Your task to perform on an android device: manage bookmarks in the chrome app Image 0: 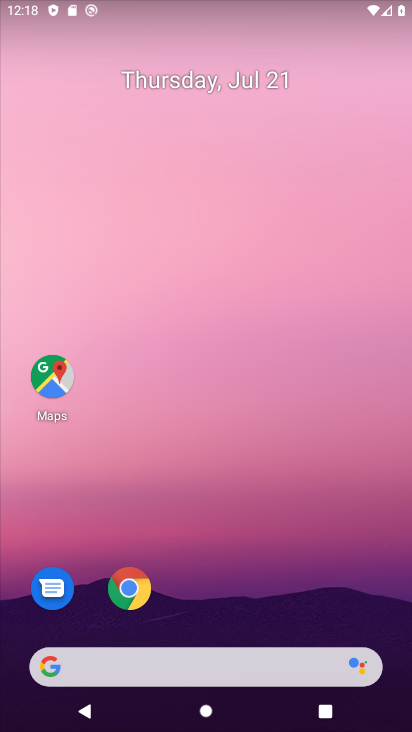
Step 0: drag from (245, 513) to (315, 238)
Your task to perform on an android device: manage bookmarks in the chrome app Image 1: 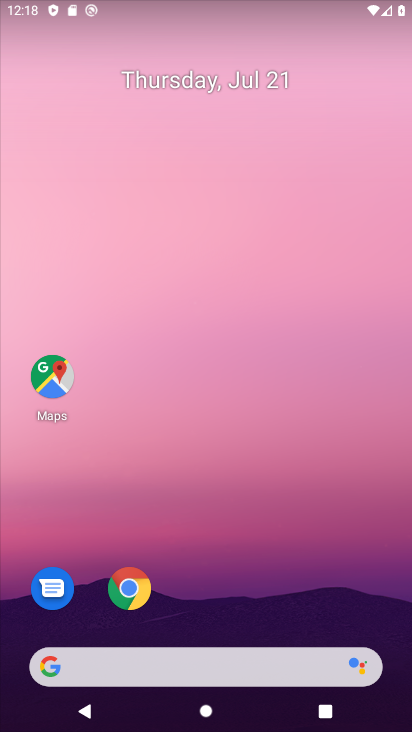
Step 1: click (134, 591)
Your task to perform on an android device: manage bookmarks in the chrome app Image 2: 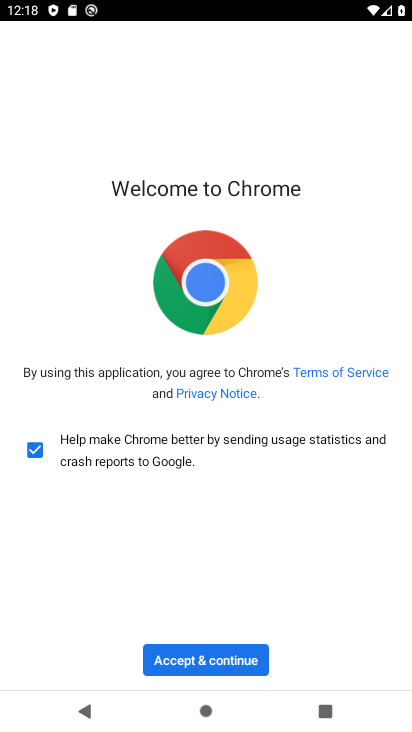
Step 2: click (225, 647)
Your task to perform on an android device: manage bookmarks in the chrome app Image 3: 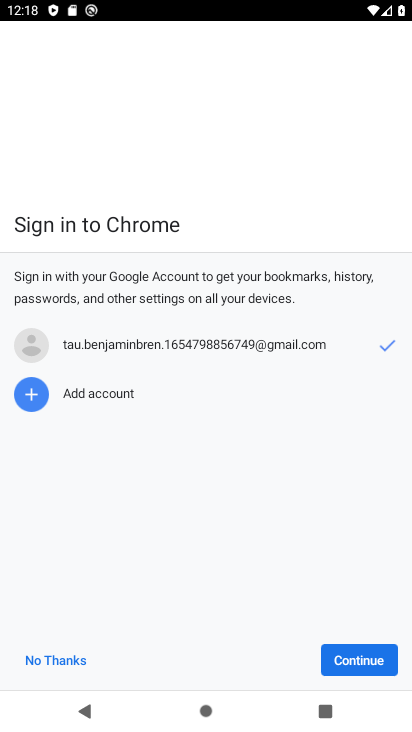
Step 3: click (340, 661)
Your task to perform on an android device: manage bookmarks in the chrome app Image 4: 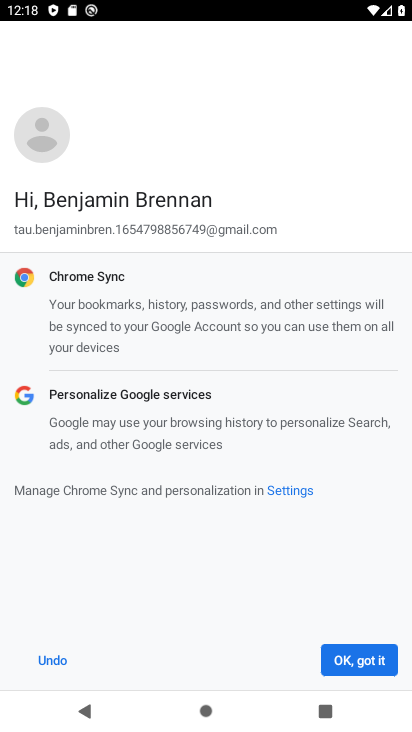
Step 4: click (342, 663)
Your task to perform on an android device: manage bookmarks in the chrome app Image 5: 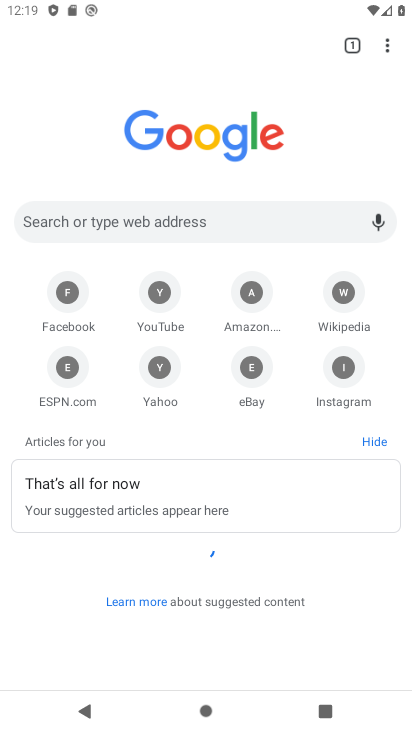
Step 5: click (383, 49)
Your task to perform on an android device: manage bookmarks in the chrome app Image 6: 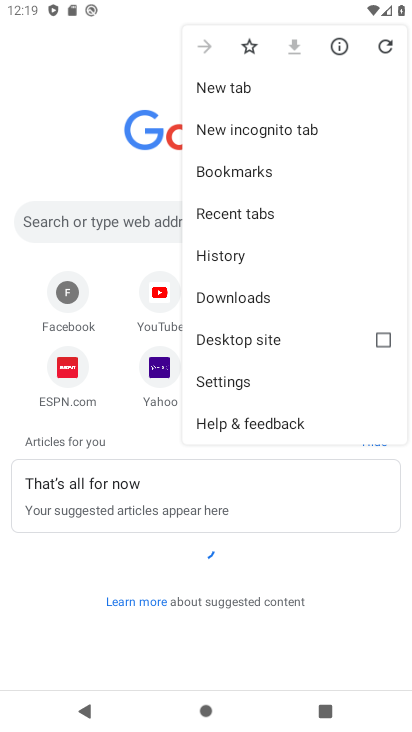
Step 6: click (247, 171)
Your task to perform on an android device: manage bookmarks in the chrome app Image 7: 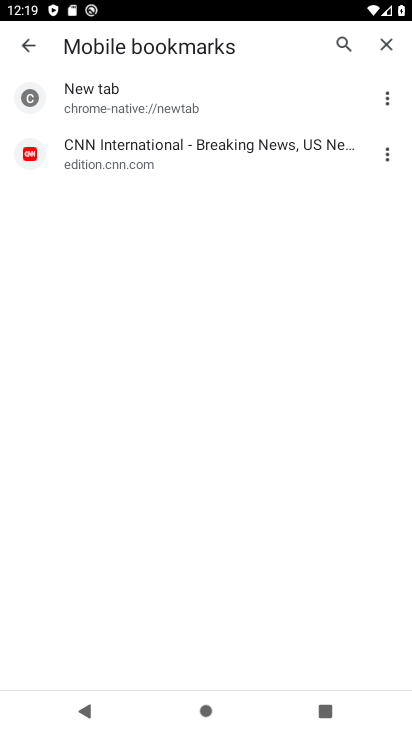
Step 7: task complete